Your task to perform on an android device: How much does a 3 bedroom apartment rent for in Boston? Image 0: 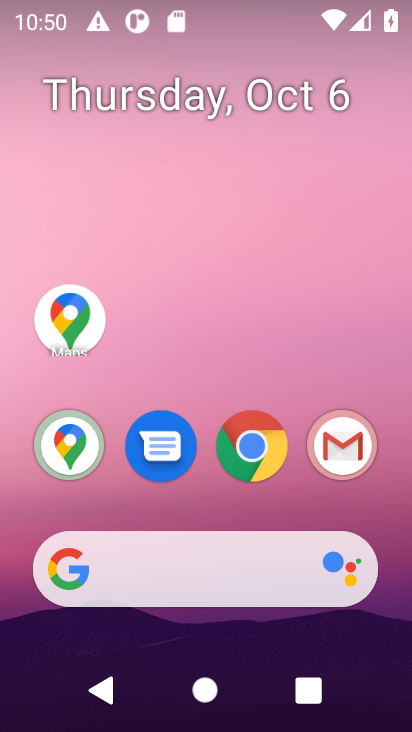
Step 0: drag from (247, 593) to (247, 326)
Your task to perform on an android device: How much does a 3 bedroom apartment rent for in Boston? Image 1: 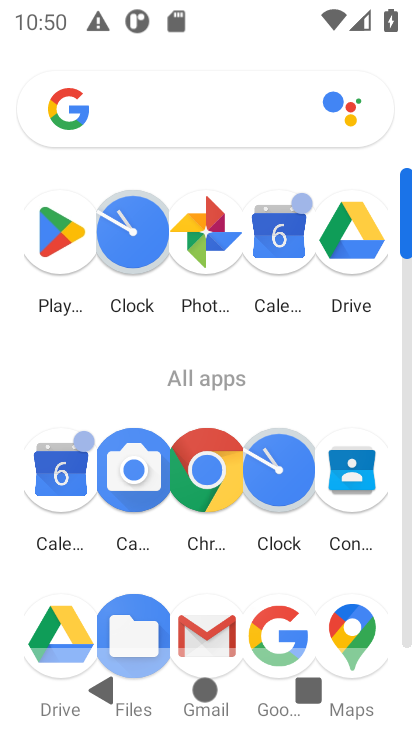
Step 1: drag from (201, 486) to (196, 323)
Your task to perform on an android device: How much does a 3 bedroom apartment rent for in Boston? Image 2: 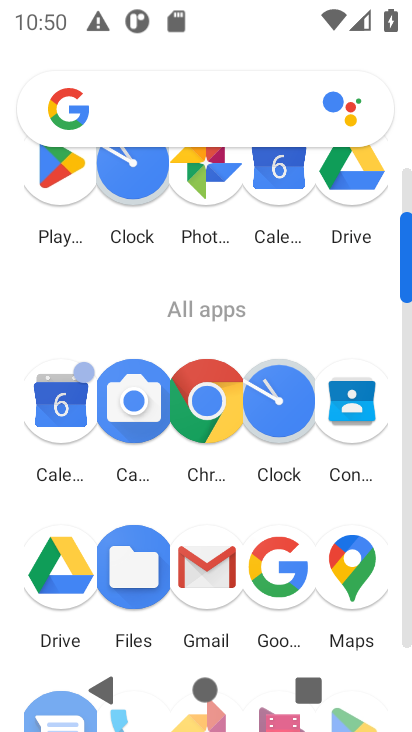
Step 2: click (257, 550)
Your task to perform on an android device: How much does a 3 bedroom apartment rent for in Boston? Image 3: 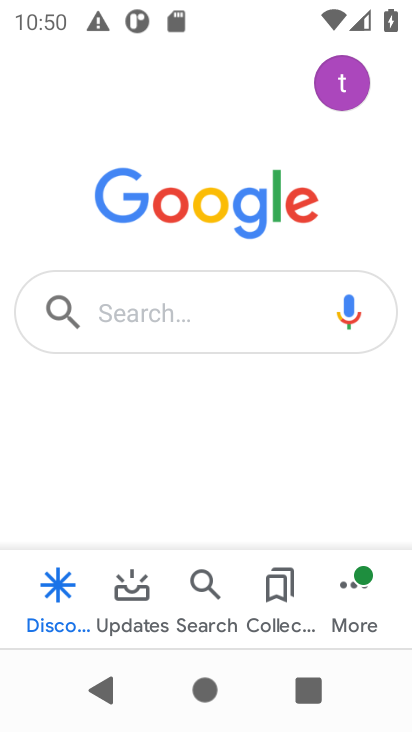
Step 3: click (194, 305)
Your task to perform on an android device: How much does a 3 bedroom apartment rent for in Boston? Image 4: 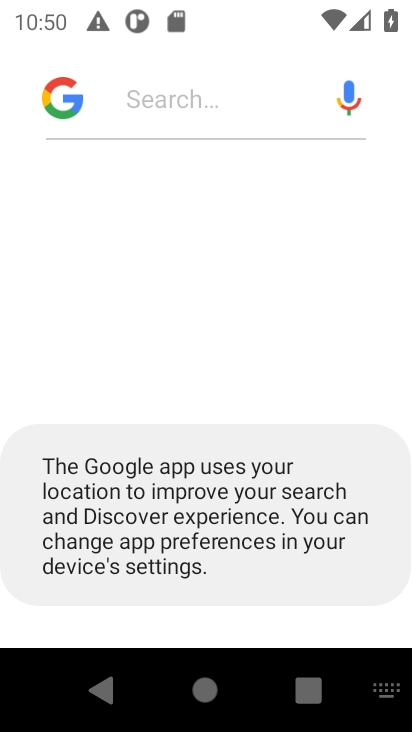
Step 4: type "How much does a 3 bedroom apartment rent for in Boston? "
Your task to perform on an android device: How much does a 3 bedroom apartment rent for in Boston? Image 5: 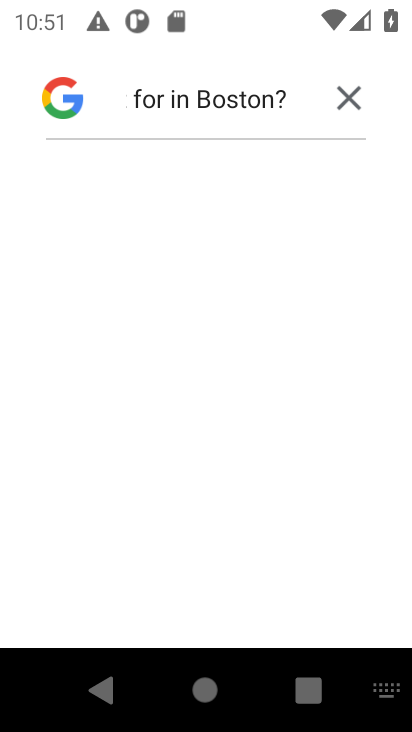
Step 5: click (224, 99)
Your task to perform on an android device: How much does a 3 bedroom apartment rent for in Boston? Image 6: 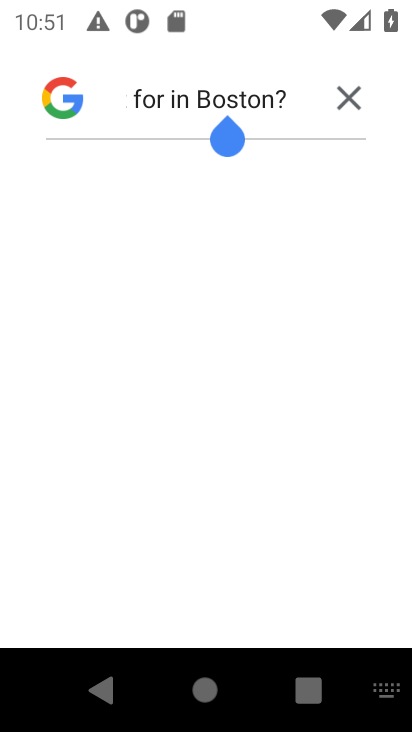
Step 6: click (361, 91)
Your task to perform on an android device: How much does a 3 bedroom apartment rent for in Boston? Image 7: 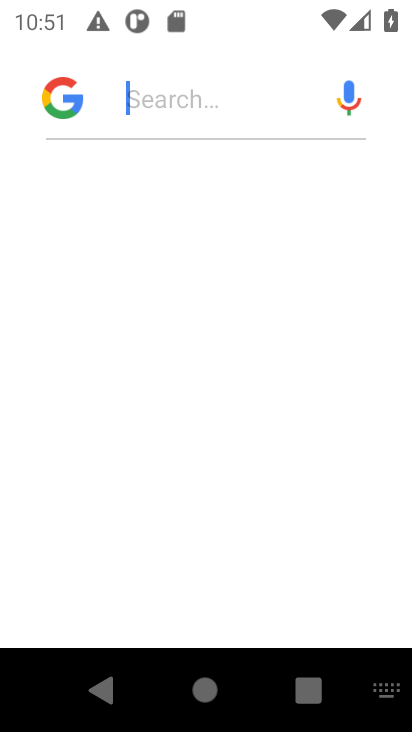
Step 7: click (233, 83)
Your task to perform on an android device: How much does a 3 bedroom apartment rent for in Boston? Image 8: 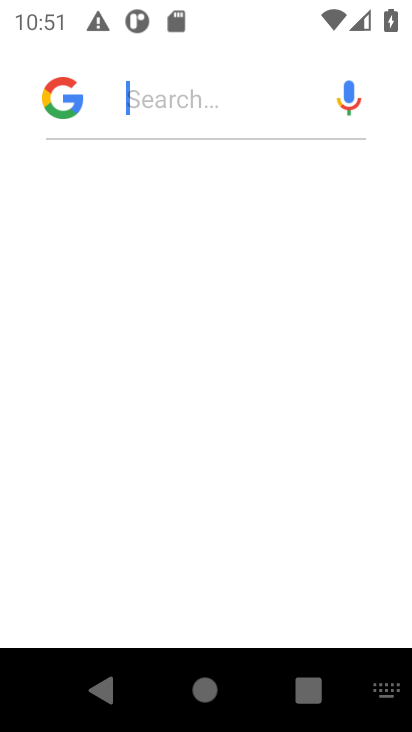
Step 8: type "How much does a 3 bedroom apartment rent for in Boston "
Your task to perform on an android device: How much does a 3 bedroom apartment rent for in Boston? Image 9: 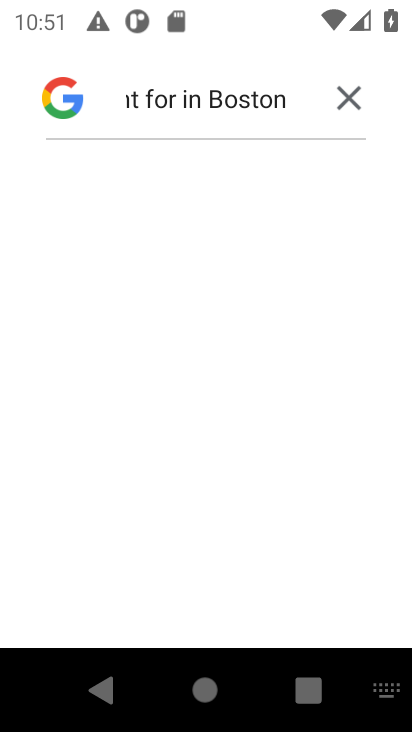
Step 9: click (126, 91)
Your task to perform on an android device: How much does a 3 bedroom apartment rent for in Boston? Image 10: 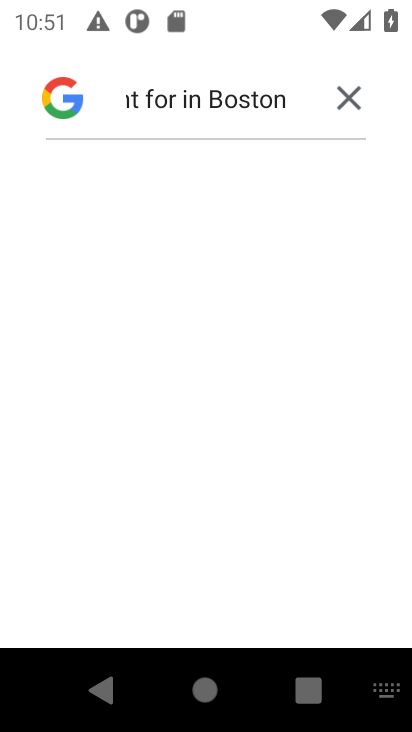
Step 10: click (126, 91)
Your task to perform on an android device: How much does a 3 bedroom apartment rent for in Boston? Image 11: 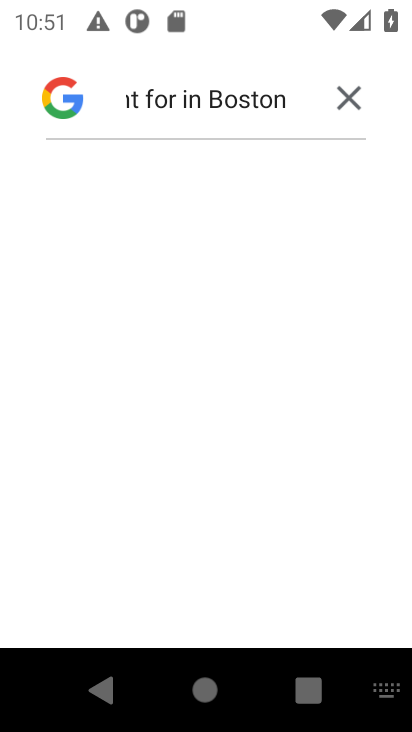
Step 11: task complete